Your task to perform on an android device: turn off notifications in google photos Image 0: 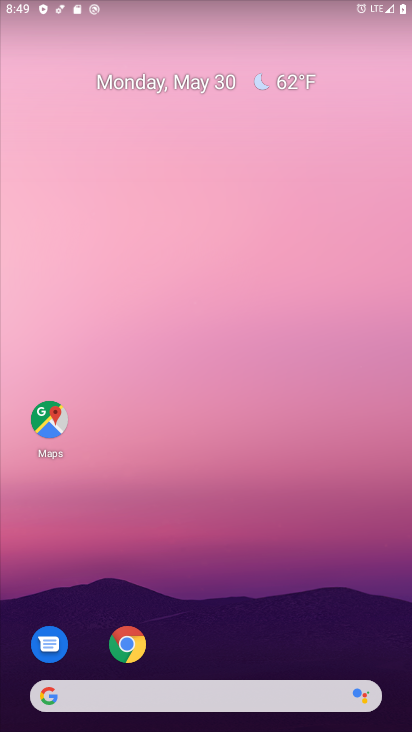
Step 0: drag from (369, 630) to (287, 40)
Your task to perform on an android device: turn off notifications in google photos Image 1: 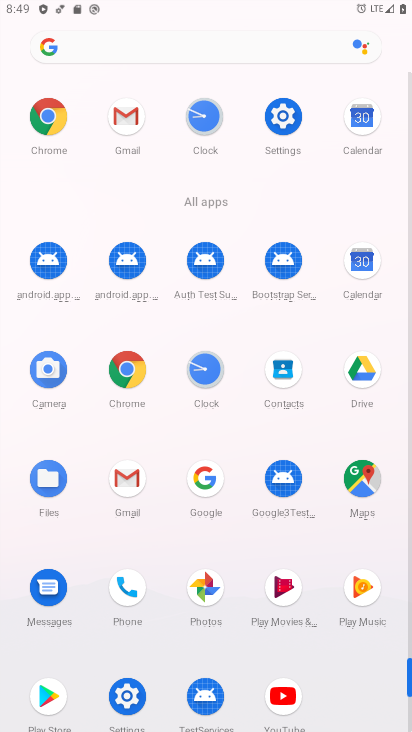
Step 1: click (205, 583)
Your task to perform on an android device: turn off notifications in google photos Image 2: 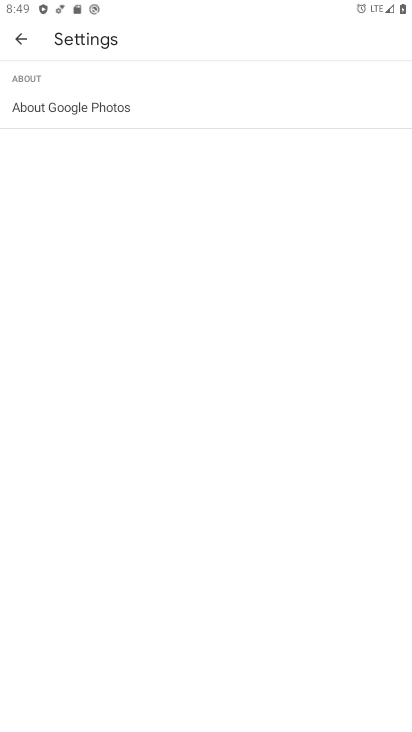
Step 2: press back button
Your task to perform on an android device: turn off notifications in google photos Image 3: 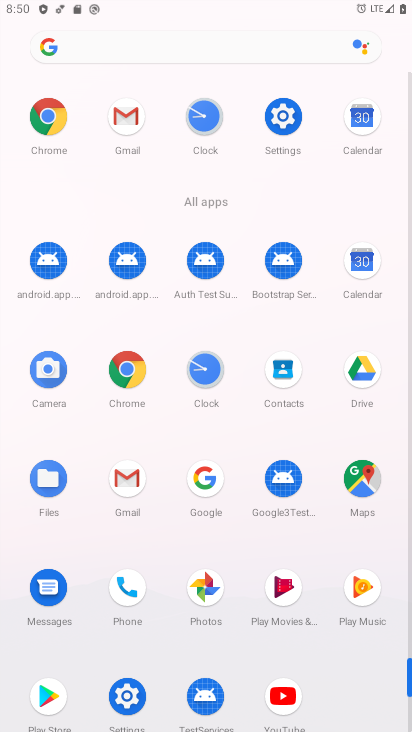
Step 3: click (205, 587)
Your task to perform on an android device: turn off notifications in google photos Image 4: 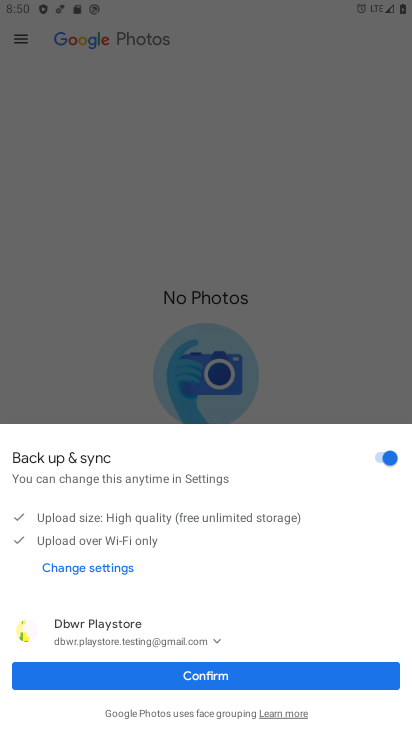
Step 4: click (184, 667)
Your task to perform on an android device: turn off notifications in google photos Image 5: 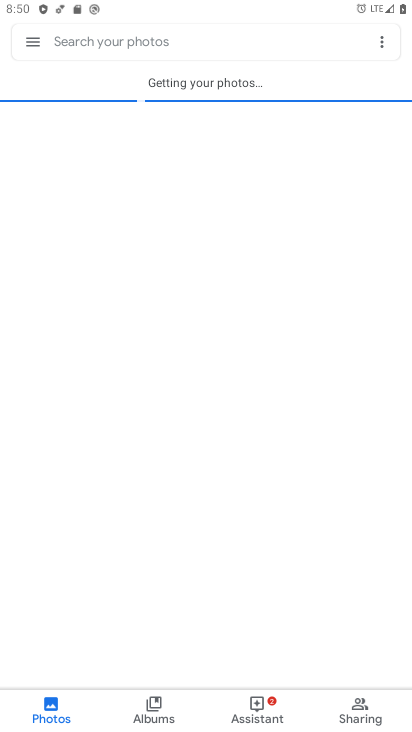
Step 5: click (32, 41)
Your task to perform on an android device: turn off notifications in google photos Image 6: 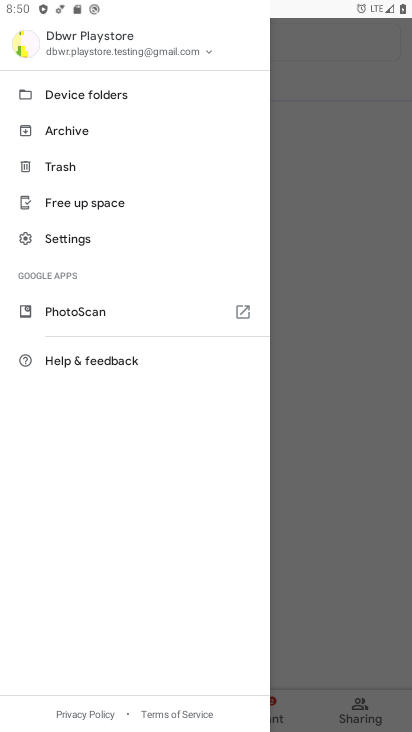
Step 6: click (78, 227)
Your task to perform on an android device: turn off notifications in google photos Image 7: 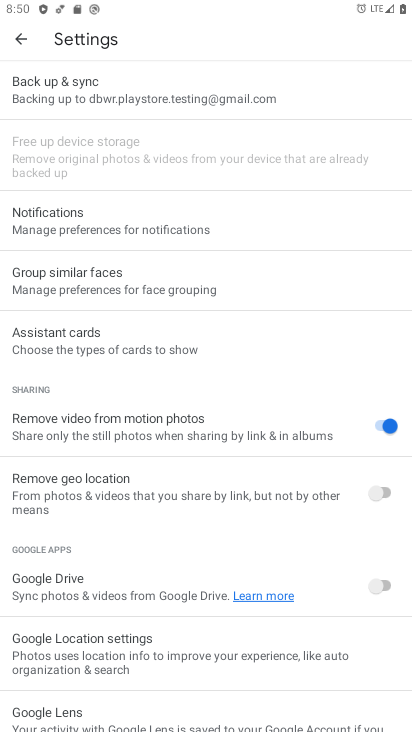
Step 7: click (50, 205)
Your task to perform on an android device: turn off notifications in google photos Image 8: 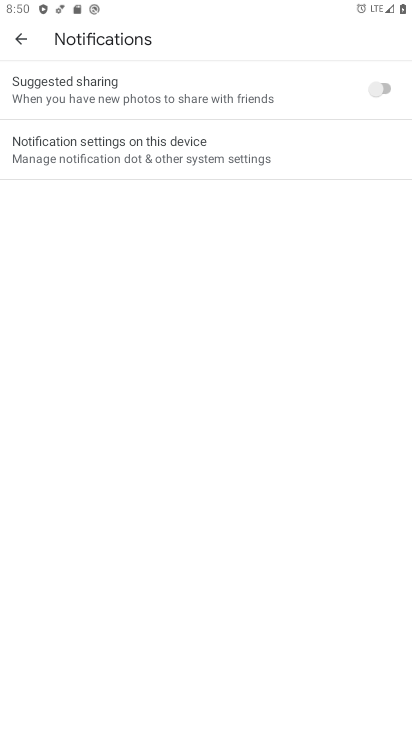
Step 8: task complete